Your task to perform on an android device: change your default location settings in chrome Image 0: 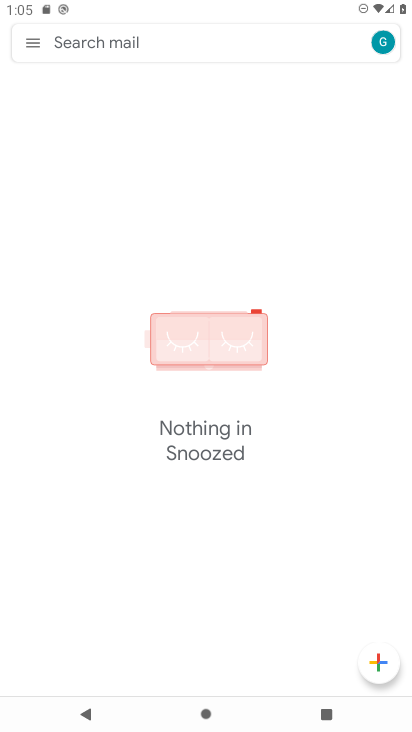
Step 0: press home button
Your task to perform on an android device: change your default location settings in chrome Image 1: 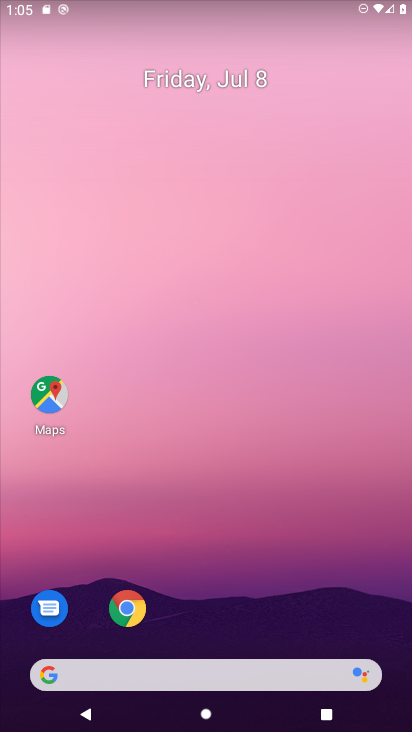
Step 1: drag from (232, 597) to (228, 144)
Your task to perform on an android device: change your default location settings in chrome Image 2: 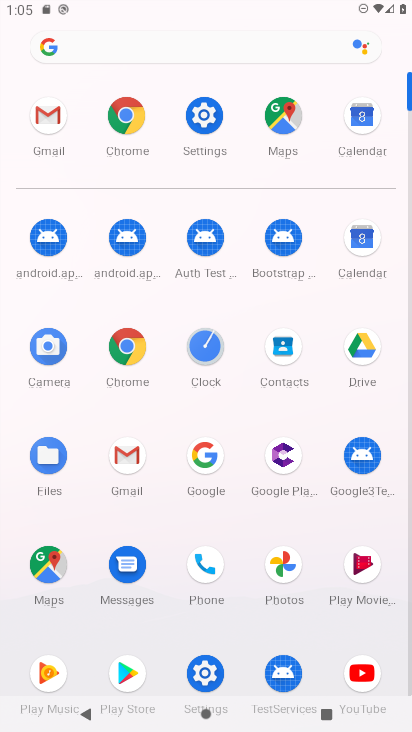
Step 2: click (130, 140)
Your task to perform on an android device: change your default location settings in chrome Image 3: 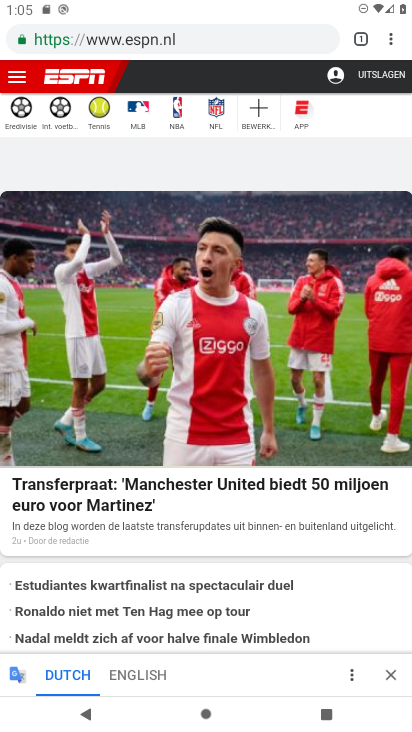
Step 3: click (384, 39)
Your task to perform on an android device: change your default location settings in chrome Image 4: 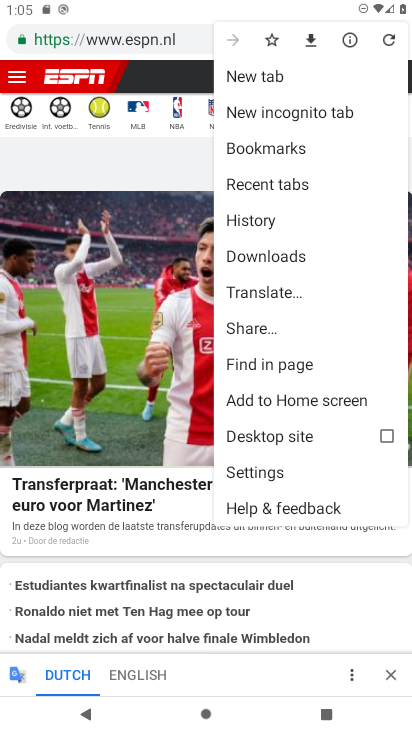
Step 4: click (298, 461)
Your task to perform on an android device: change your default location settings in chrome Image 5: 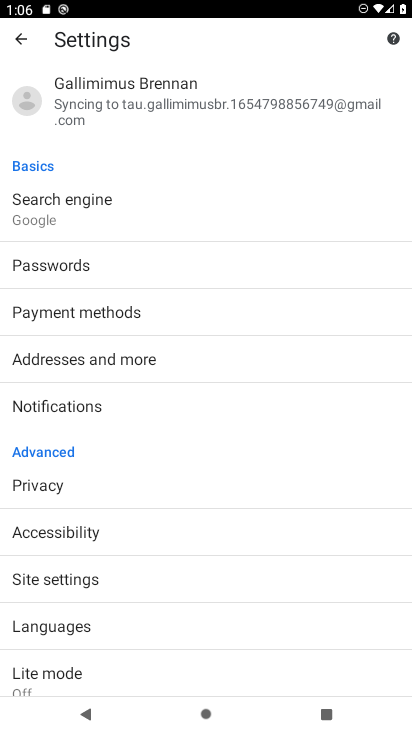
Step 5: click (94, 195)
Your task to perform on an android device: change your default location settings in chrome Image 6: 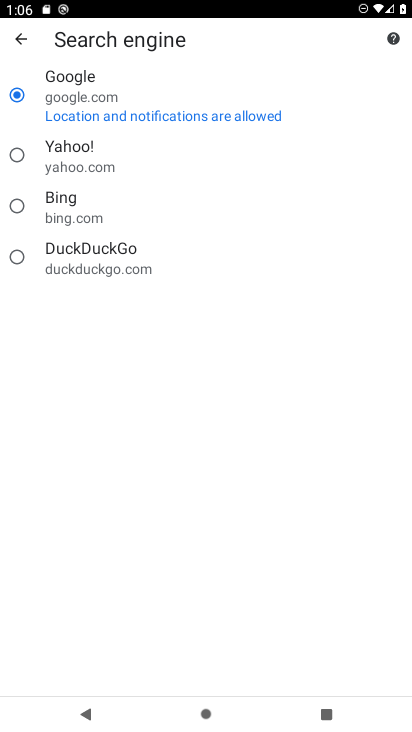
Step 6: click (27, 44)
Your task to perform on an android device: change your default location settings in chrome Image 7: 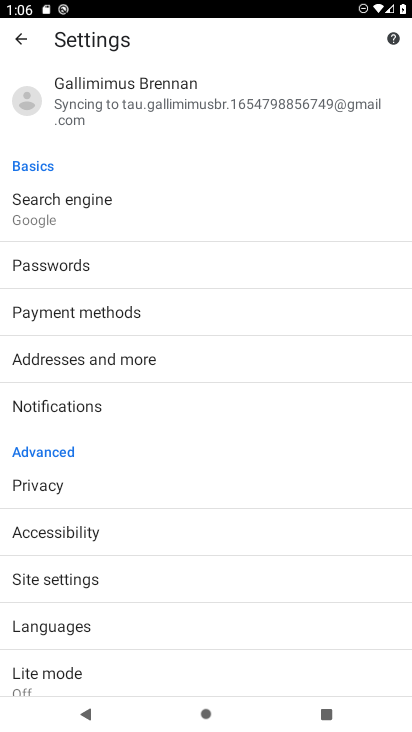
Step 7: click (190, 361)
Your task to perform on an android device: change your default location settings in chrome Image 8: 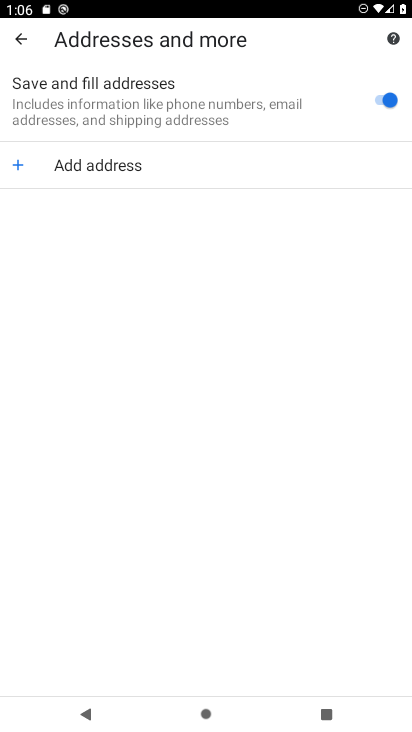
Step 8: task complete